Your task to perform on an android device: Open the calendar app, open the side menu, and click the "Day" option Image 0: 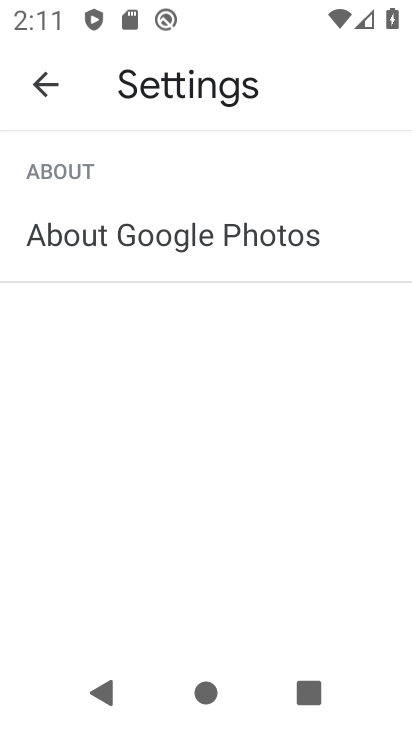
Step 0: press home button
Your task to perform on an android device: Open the calendar app, open the side menu, and click the "Day" option Image 1: 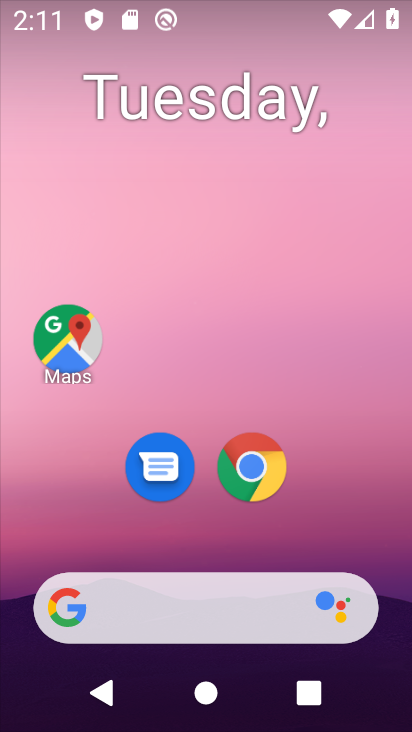
Step 1: drag from (340, 496) to (356, 112)
Your task to perform on an android device: Open the calendar app, open the side menu, and click the "Day" option Image 2: 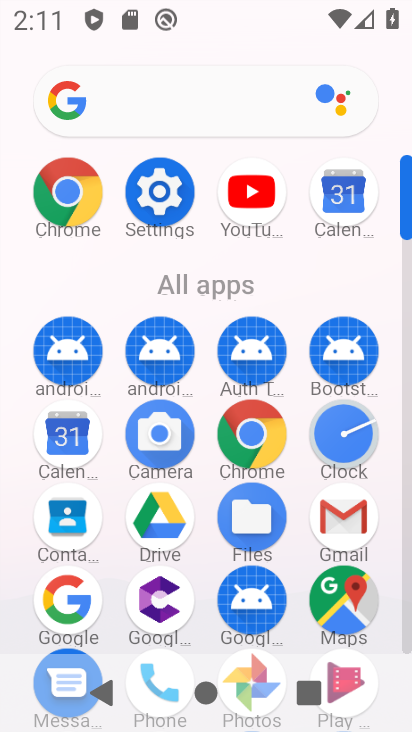
Step 2: click (72, 442)
Your task to perform on an android device: Open the calendar app, open the side menu, and click the "Day" option Image 3: 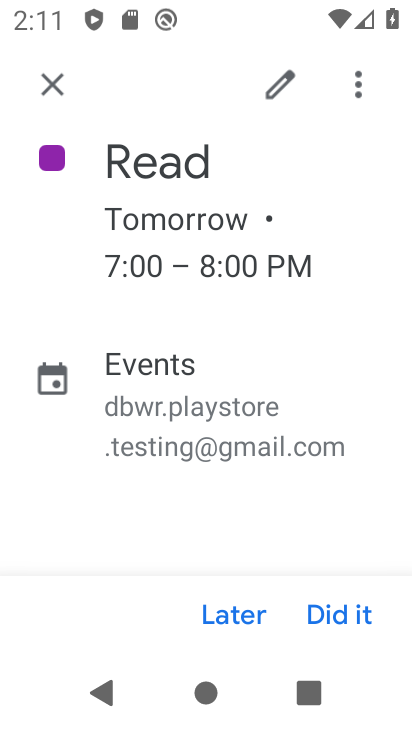
Step 3: click (48, 88)
Your task to perform on an android device: Open the calendar app, open the side menu, and click the "Day" option Image 4: 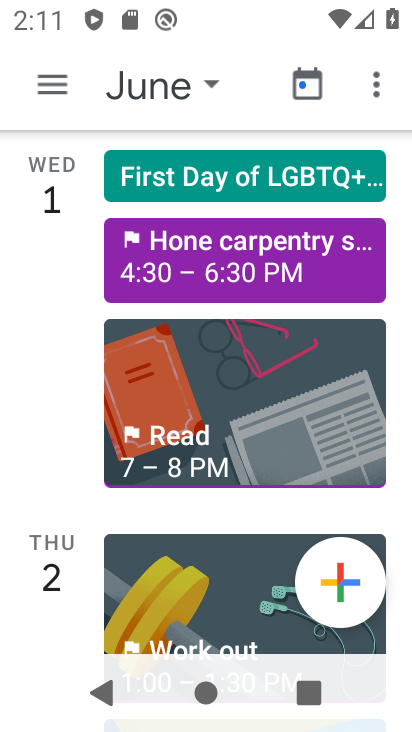
Step 4: click (52, 91)
Your task to perform on an android device: Open the calendar app, open the side menu, and click the "Day" option Image 5: 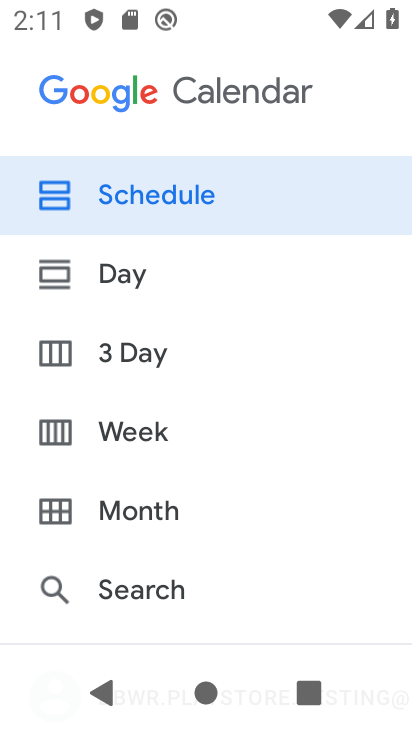
Step 5: click (158, 277)
Your task to perform on an android device: Open the calendar app, open the side menu, and click the "Day" option Image 6: 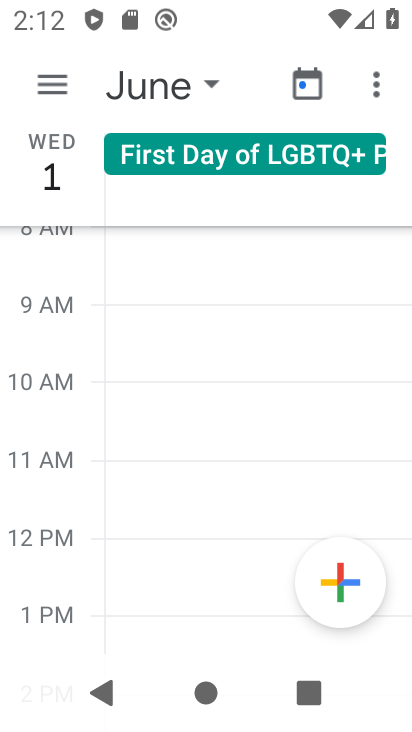
Step 6: task complete